Your task to perform on an android device: turn on bluetooth scan Image 0: 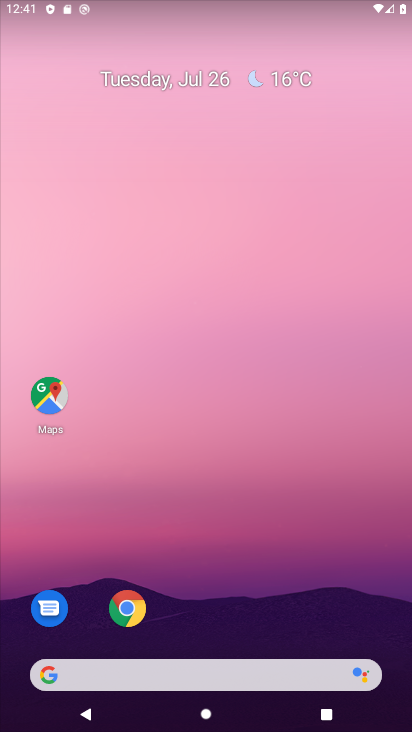
Step 0: task complete